Your task to perform on an android device: open a bookmark in the chrome app Image 0: 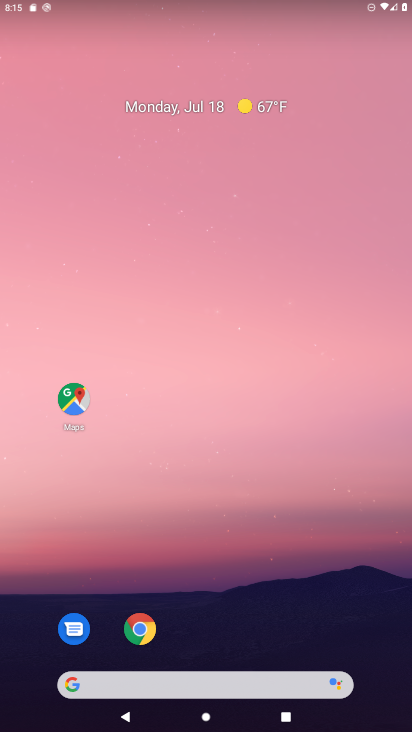
Step 0: drag from (232, 678) to (195, 59)
Your task to perform on an android device: open a bookmark in the chrome app Image 1: 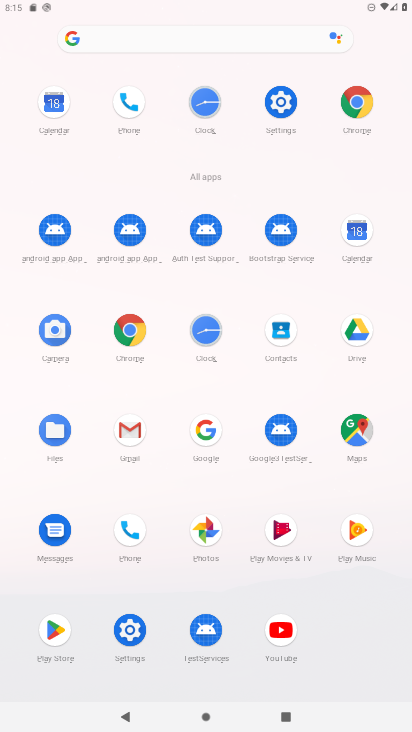
Step 1: click (370, 92)
Your task to perform on an android device: open a bookmark in the chrome app Image 2: 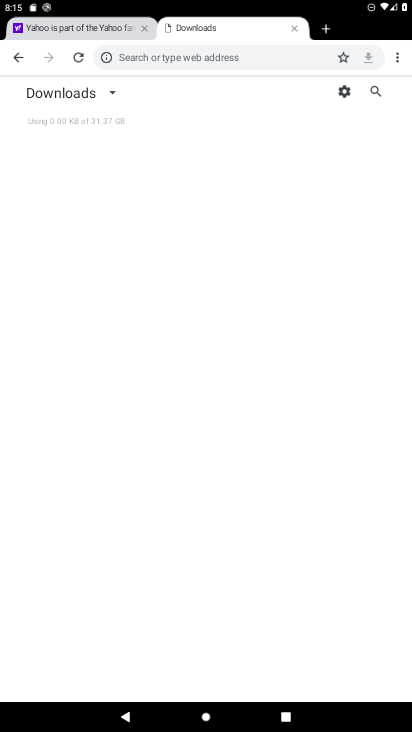
Step 2: press back button
Your task to perform on an android device: open a bookmark in the chrome app Image 3: 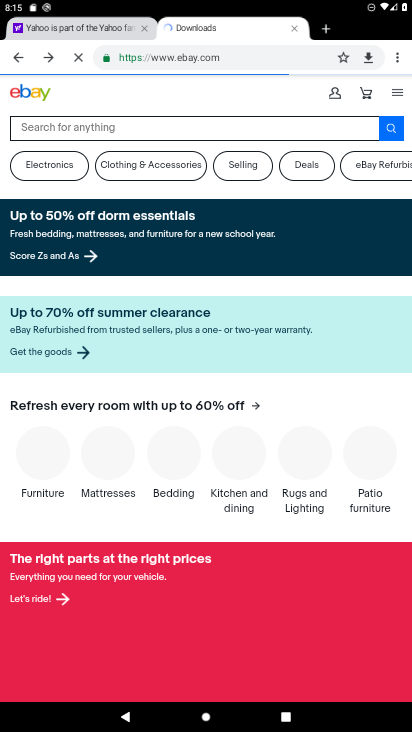
Step 3: click (394, 59)
Your task to perform on an android device: open a bookmark in the chrome app Image 4: 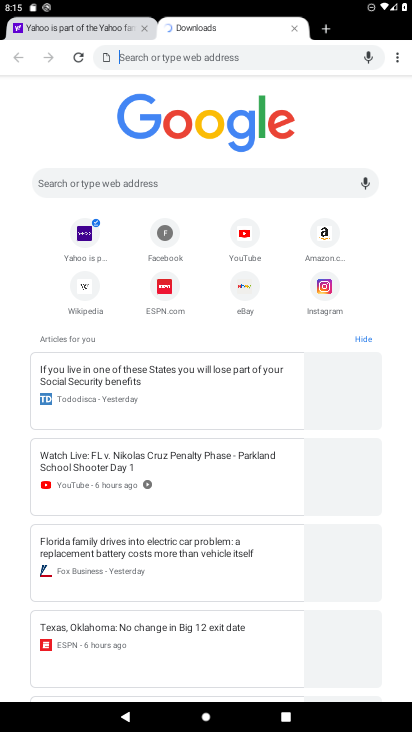
Step 4: task complete